Your task to perform on an android device: set an alarm Image 0: 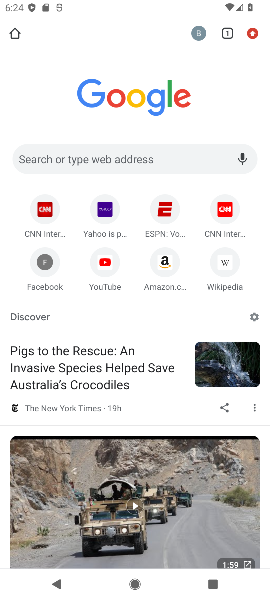
Step 0: press home button
Your task to perform on an android device: set an alarm Image 1: 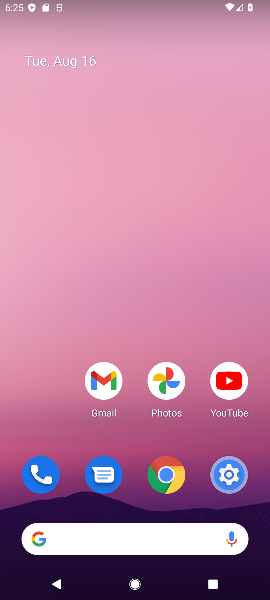
Step 1: drag from (79, 492) to (53, 22)
Your task to perform on an android device: set an alarm Image 2: 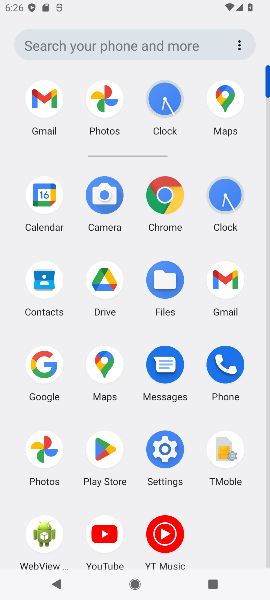
Step 2: click (225, 182)
Your task to perform on an android device: set an alarm Image 3: 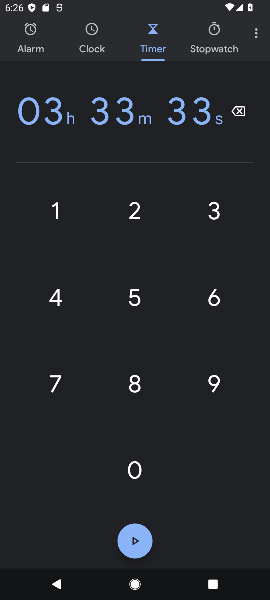
Step 3: click (38, 38)
Your task to perform on an android device: set an alarm Image 4: 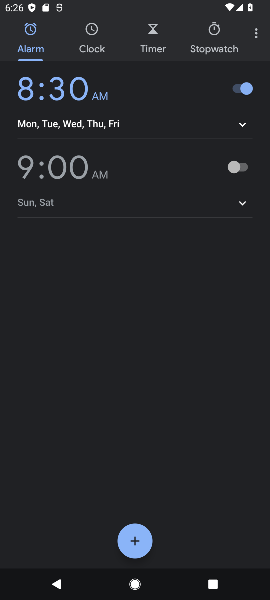
Step 4: click (250, 162)
Your task to perform on an android device: set an alarm Image 5: 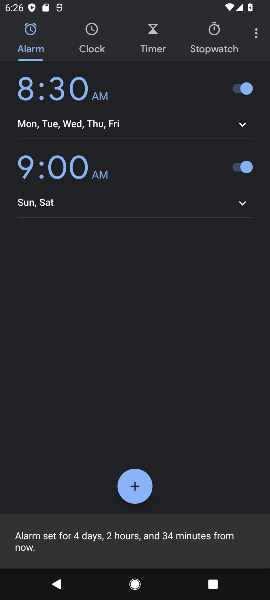
Step 5: task complete